Your task to perform on an android device: toggle notifications settings in the gmail app Image 0: 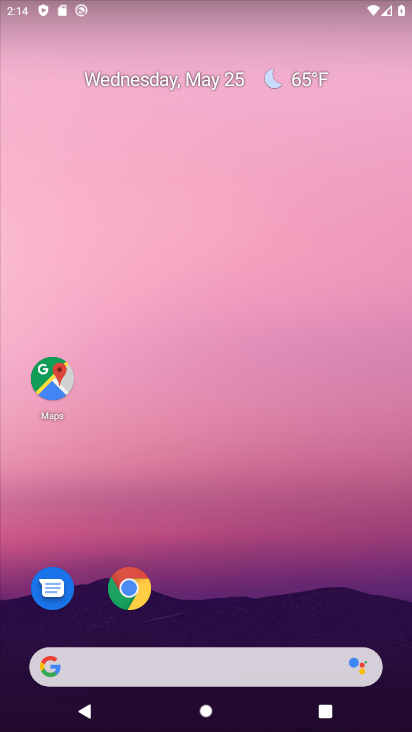
Step 0: drag from (207, 608) to (232, 189)
Your task to perform on an android device: toggle notifications settings in the gmail app Image 1: 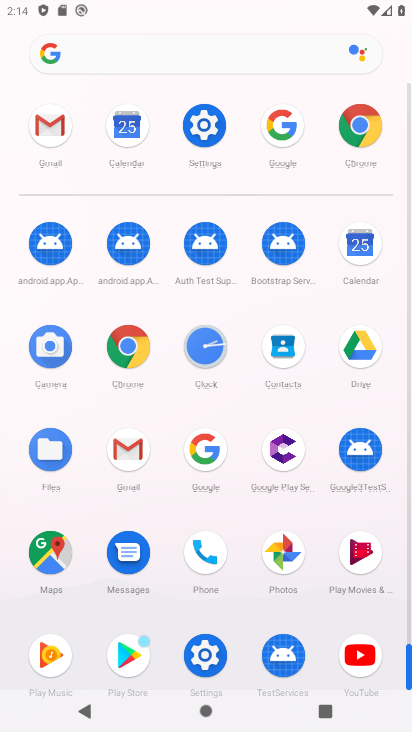
Step 1: click (46, 128)
Your task to perform on an android device: toggle notifications settings in the gmail app Image 2: 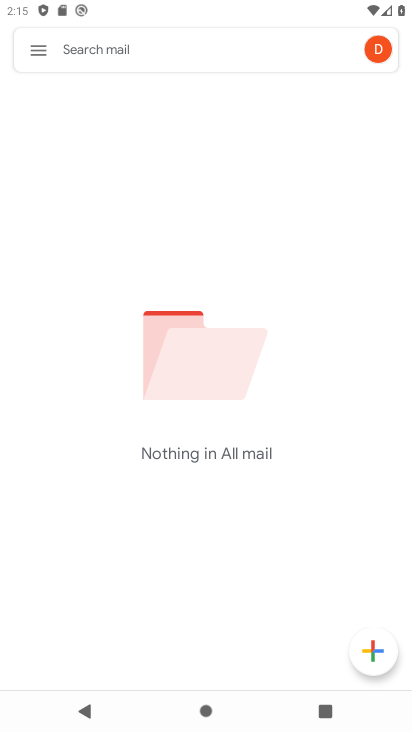
Step 2: click (40, 53)
Your task to perform on an android device: toggle notifications settings in the gmail app Image 3: 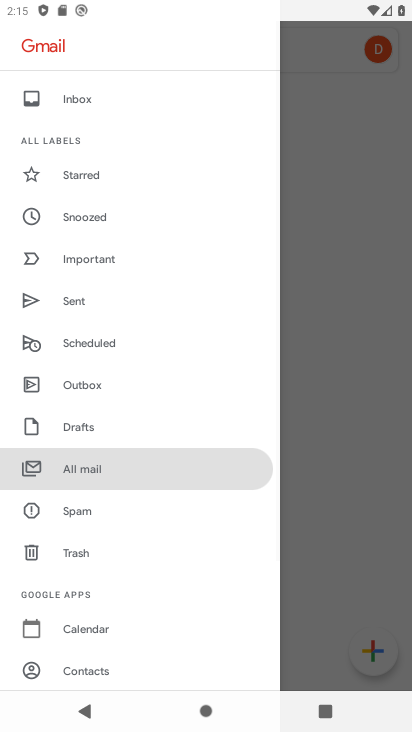
Step 3: drag from (83, 562) to (118, 97)
Your task to perform on an android device: toggle notifications settings in the gmail app Image 4: 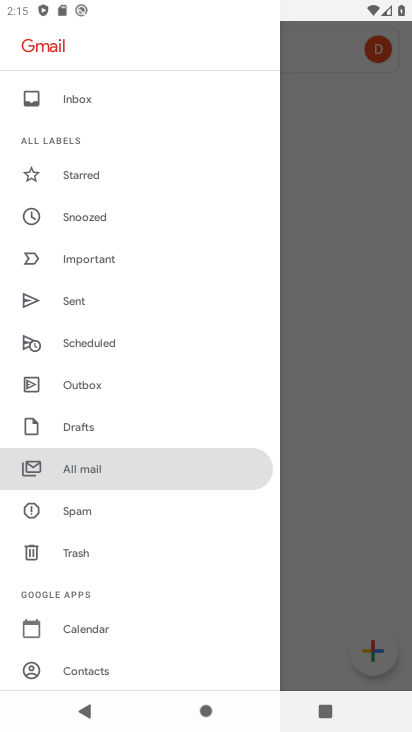
Step 4: drag from (120, 527) to (191, 142)
Your task to perform on an android device: toggle notifications settings in the gmail app Image 5: 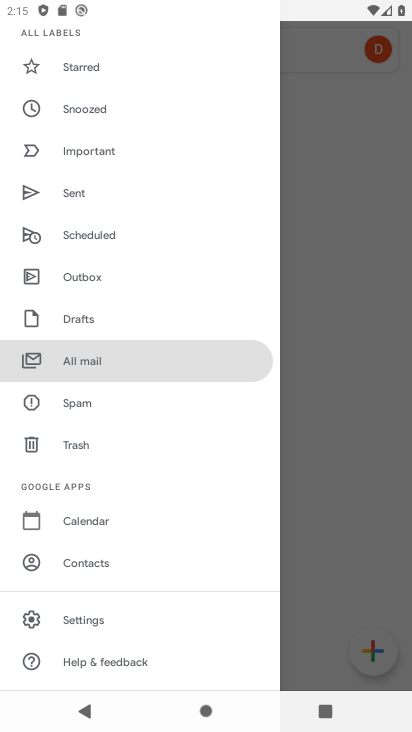
Step 5: click (77, 616)
Your task to perform on an android device: toggle notifications settings in the gmail app Image 6: 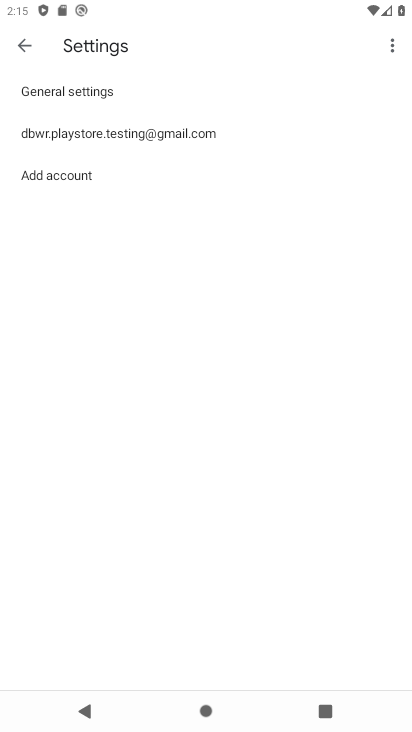
Step 6: click (158, 142)
Your task to perform on an android device: toggle notifications settings in the gmail app Image 7: 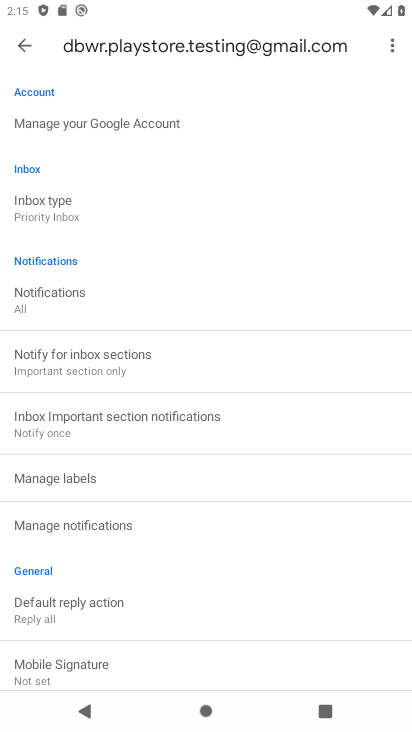
Step 7: click (84, 305)
Your task to perform on an android device: toggle notifications settings in the gmail app Image 8: 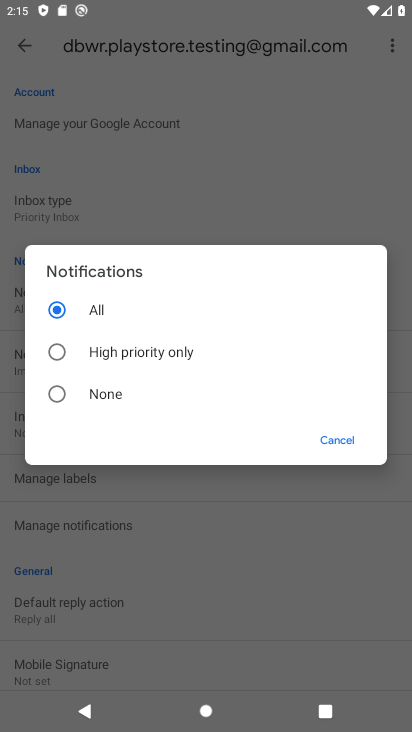
Step 8: click (91, 400)
Your task to perform on an android device: toggle notifications settings in the gmail app Image 9: 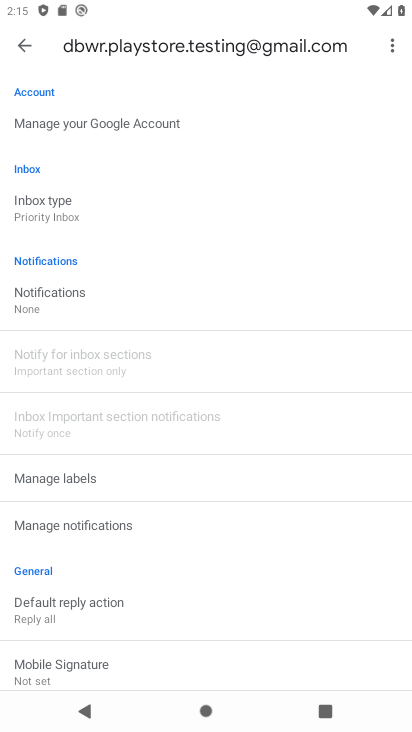
Step 9: task complete